Your task to perform on an android device: Go to battery settings Image 0: 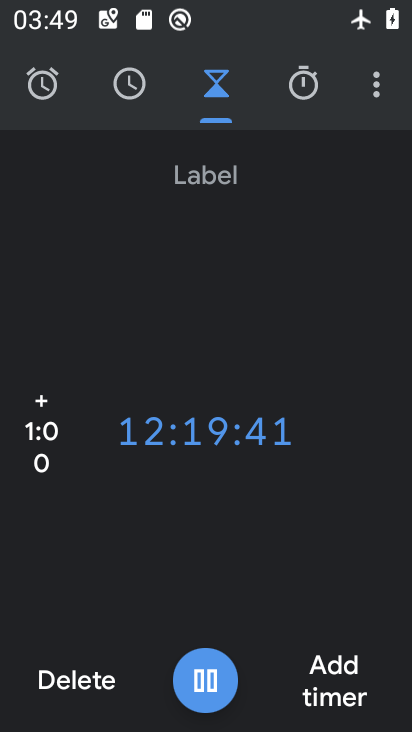
Step 0: press home button
Your task to perform on an android device: Go to battery settings Image 1: 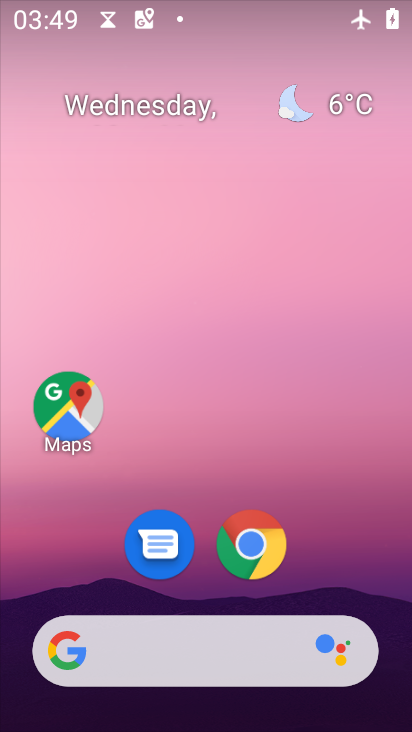
Step 1: drag from (336, 580) to (367, 53)
Your task to perform on an android device: Go to battery settings Image 2: 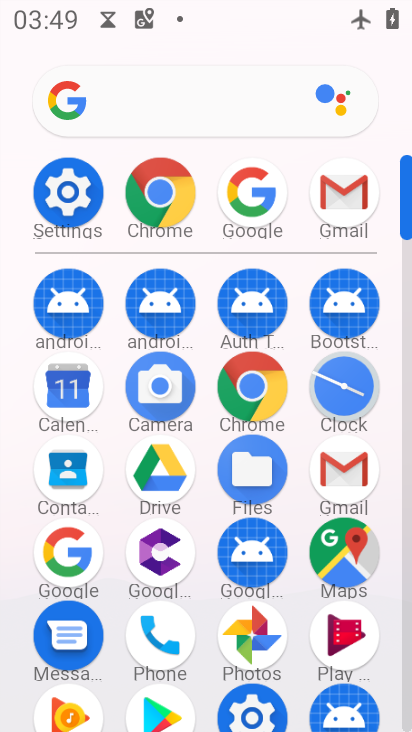
Step 2: click (81, 192)
Your task to perform on an android device: Go to battery settings Image 3: 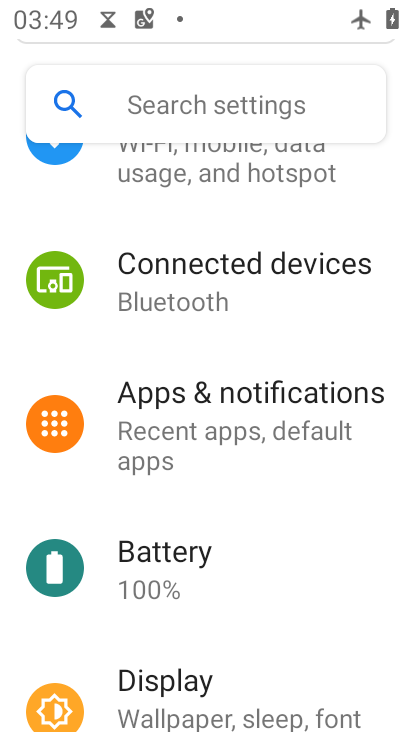
Step 3: click (156, 527)
Your task to perform on an android device: Go to battery settings Image 4: 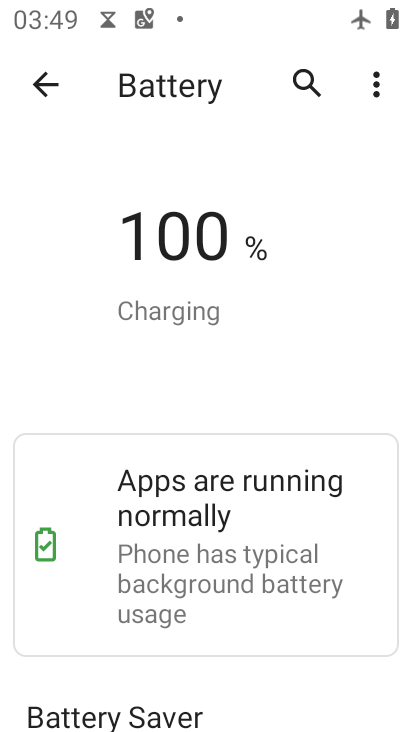
Step 4: task complete